Your task to perform on an android device: toggle wifi Image 0: 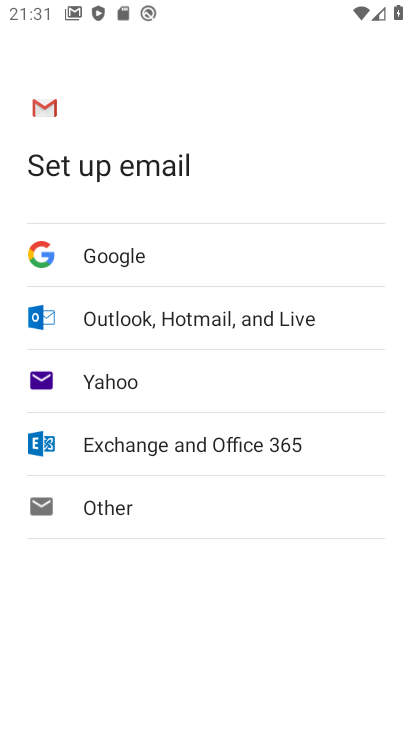
Step 0: drag from (200, 15) to (110, 658)
Your task to perform on an android device: toggle wifi Image 1: 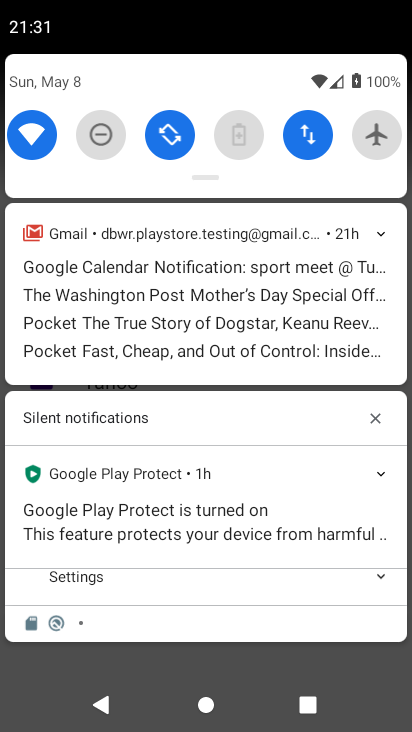
Step 1: click (30, 154)
Your task to perform on an android device: toggle wifi Image 2: 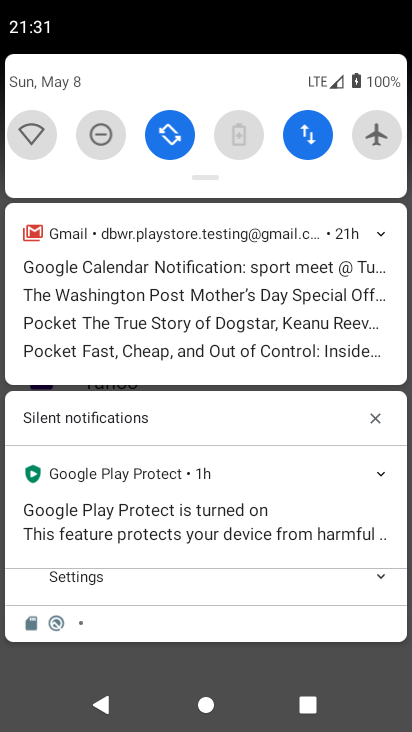
Step 2: click (30, 154)
Your task to perform on an android device: toggle wifi Image 3: 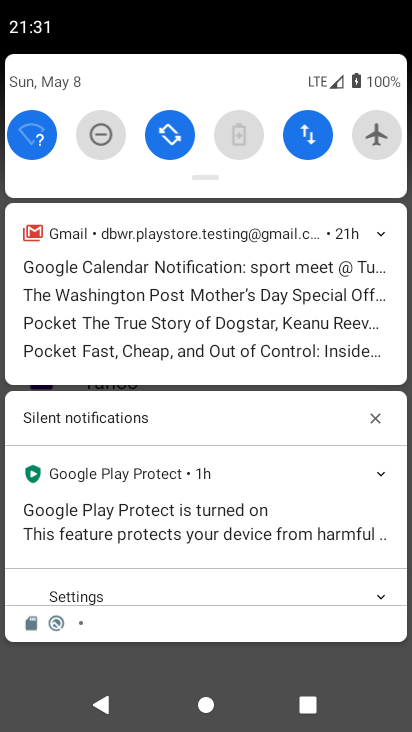
Step 3: task complete